Your task to perform on an android device: toggle improve location accuracy Image 0: 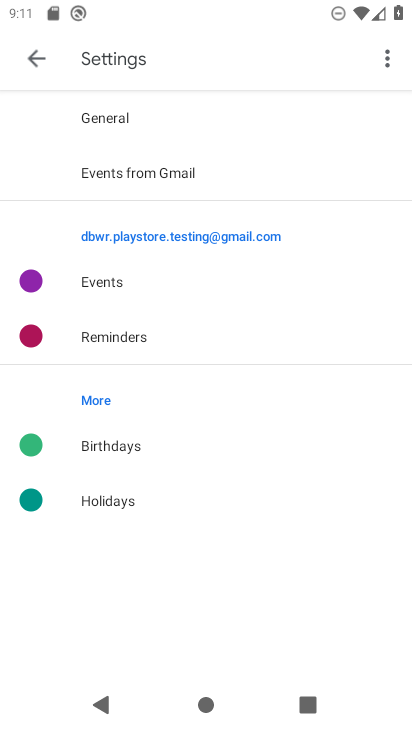
Step 0: press home button
Your task to perform on an android device: toggle improve location accuracy Image 1: 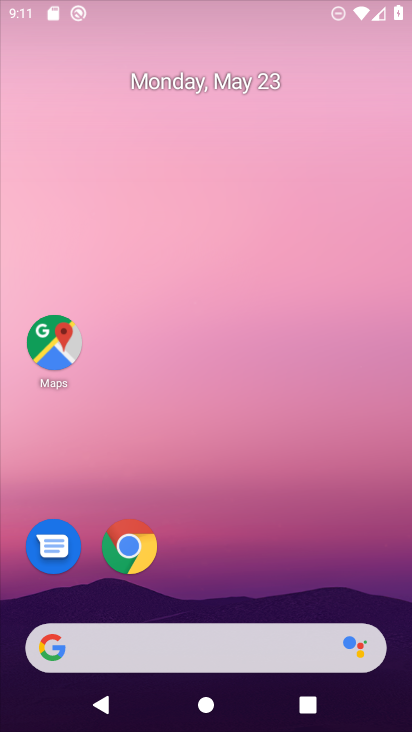
Step 1: drag from (329, 535) to (226, 35)
Your task to perform on an android device: toggle improve location accuracy Image 2: 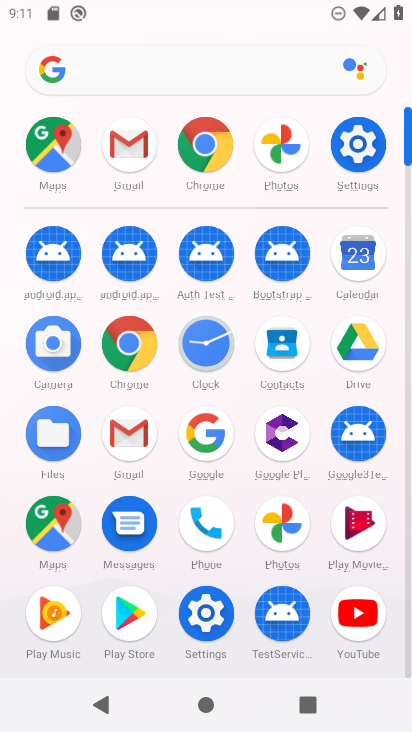
Step 2: click (365, 154)
Your task to perform on an android device: toggle improve location accuracy Image 3: 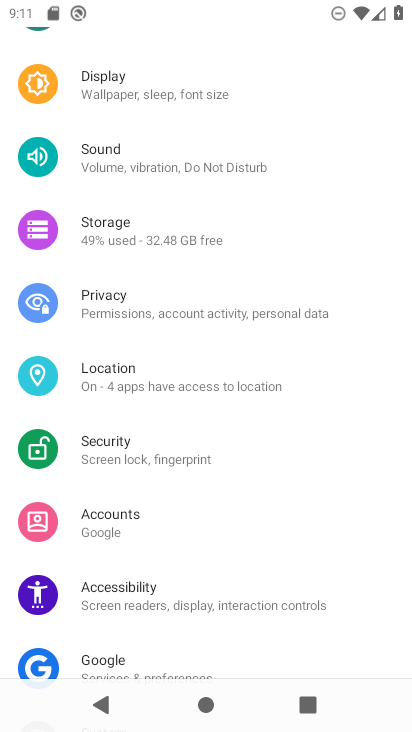
Step 3: click (207, 376)
Your task to perform on an android device: toggle improve location accuracy Image 4: 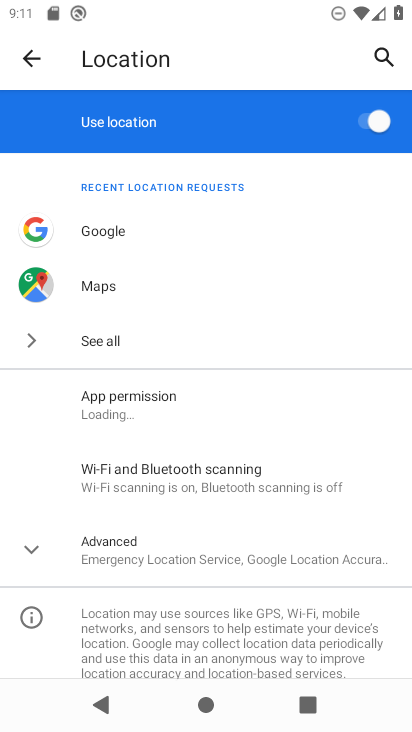
Step 4: click (217, 564)
Your task to perform on an android device: toggle improve location accuracy Image 5: 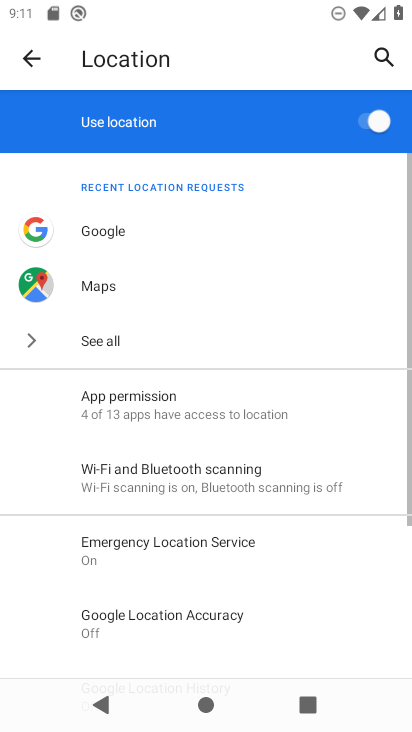
Step 5: drag from (259, 634) to (275, 455)
Your task to perform on an android device: toggle improve location accuracy Image 6: 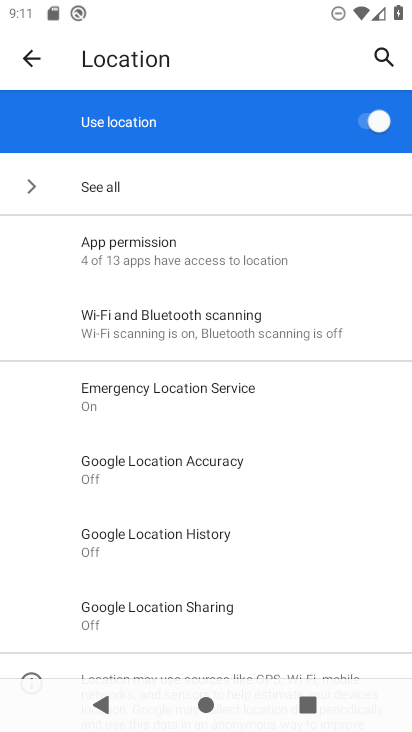
Step 6: click (238, 449)
Your task to perform on an android device: toggle improve location accuracy Image 7: 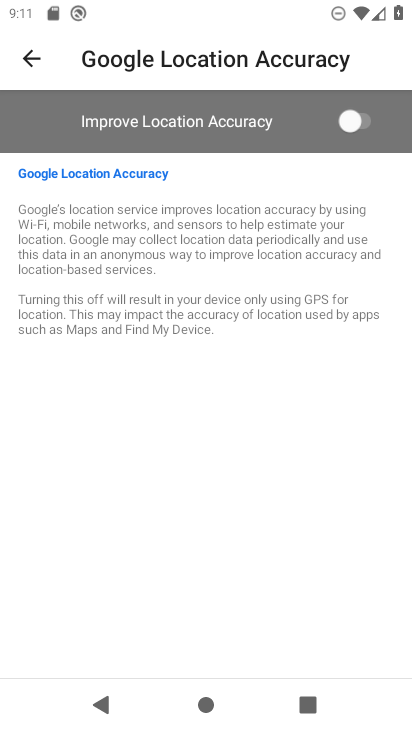
Step 7: click (350, 119)
Your task to perform on an android device: toggle improve location accuracy Image 8: 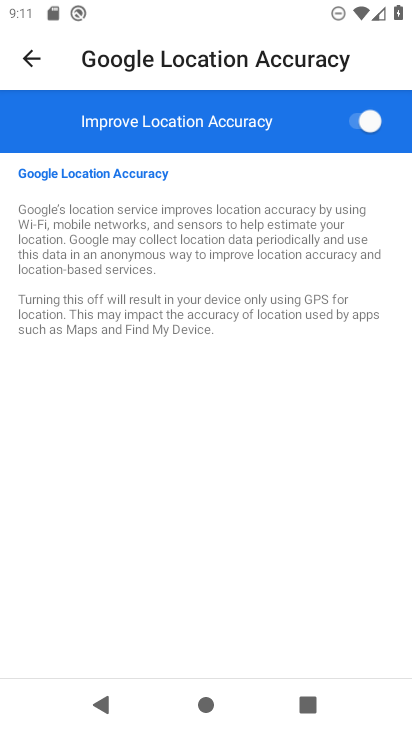
Step 8: task complete